Your task to perform on an android device: change the clock display to show seconds Image 0: 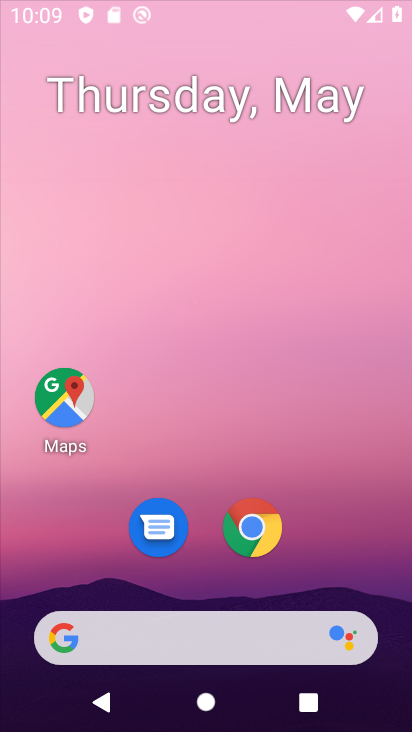
Step 0: drag from (294, 571) to (309, 30)
Your task to perform on an android device: change the clock display to show seconds Image 1: 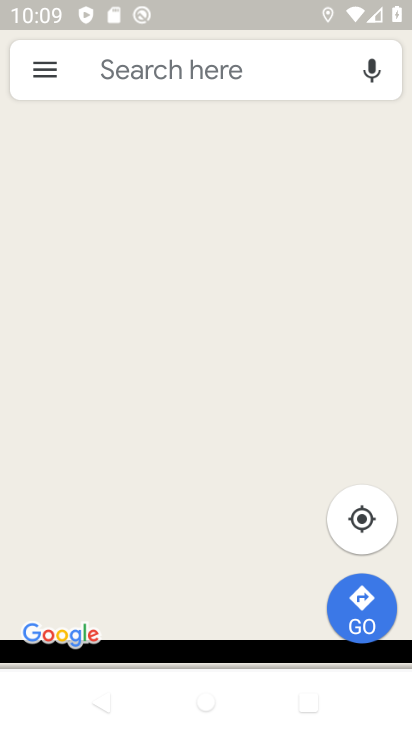
Step 1: press home button
Your task to perform on an android device: change the clock display to show seconds Image 2: 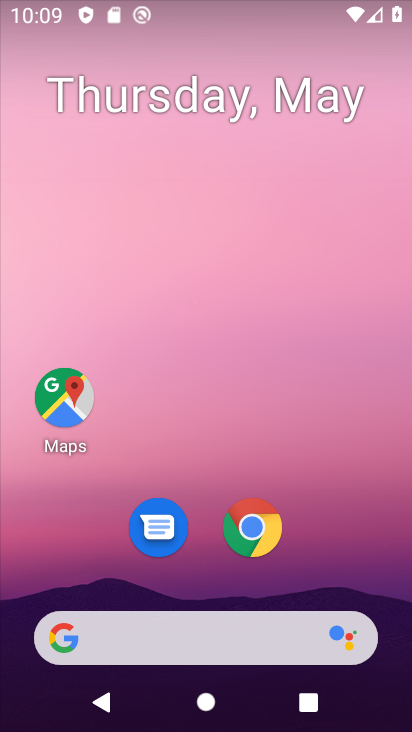
Step 2: drag from (270, 588) to (274, 148)
Your task to perform on an android device: change the clock display to show seconds Image 3: 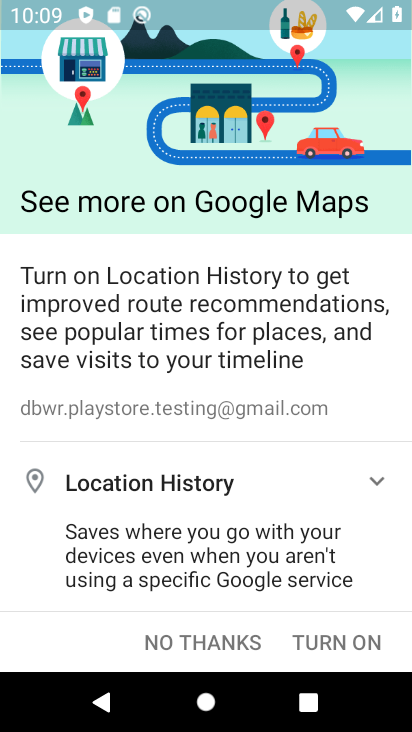
Step 3: press home button
Your task to perform on an android device: change the clock display to show seconds Image 4: 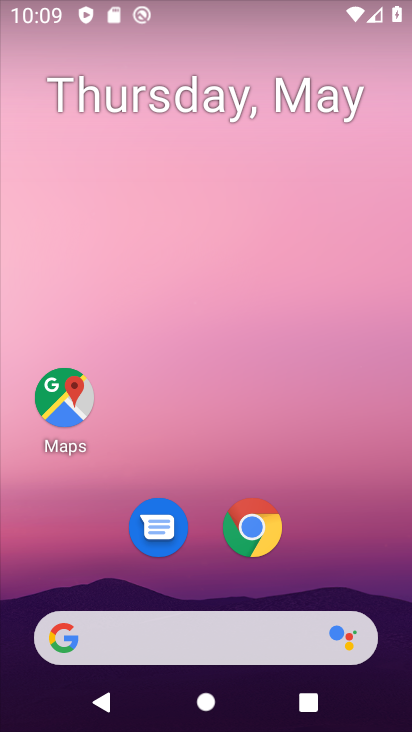
Step 4: drag from (295, 317) to (295, 195)
Your task to perform on an android device: change the clock display to show seconds Image 5: 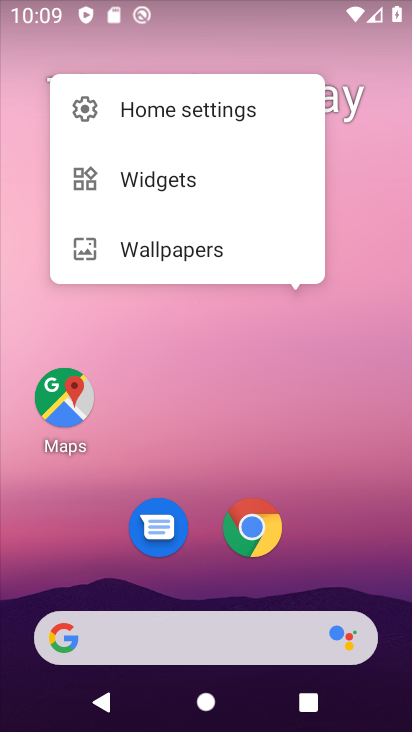
Step 5: drag from (282, 477) to (301, 122)
Your task to perform on an android device: change the clock display to show seconds Image 6: 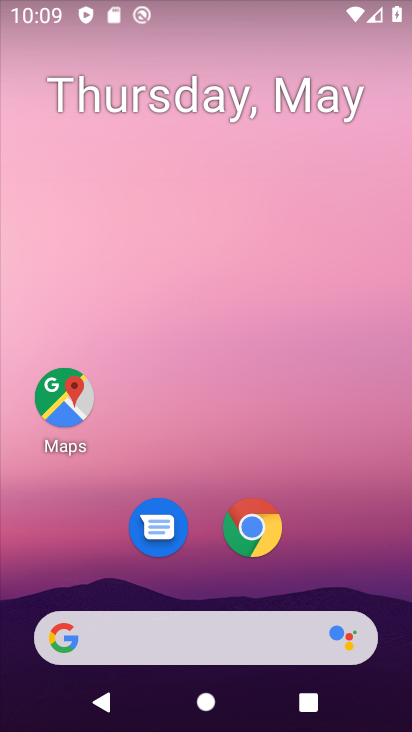
Step 6: drag from (289, 568) to (304, 106)
Your task to perform on an android device: change the clock display to show seconds Image 7: 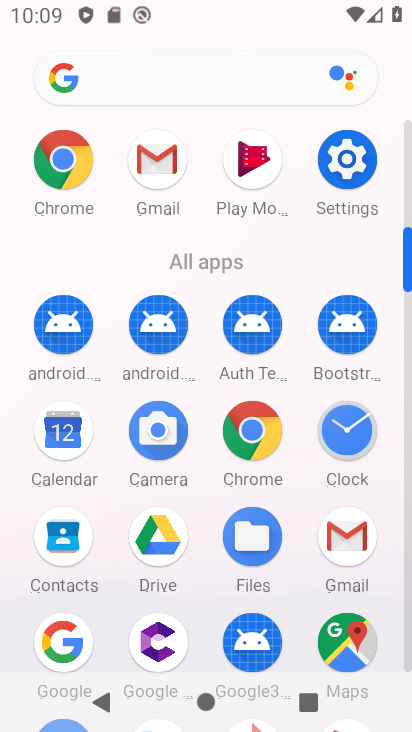
Step 7: click (351, 440)
Your task to perform on an android device: change the clock display to show seconds Image 8: 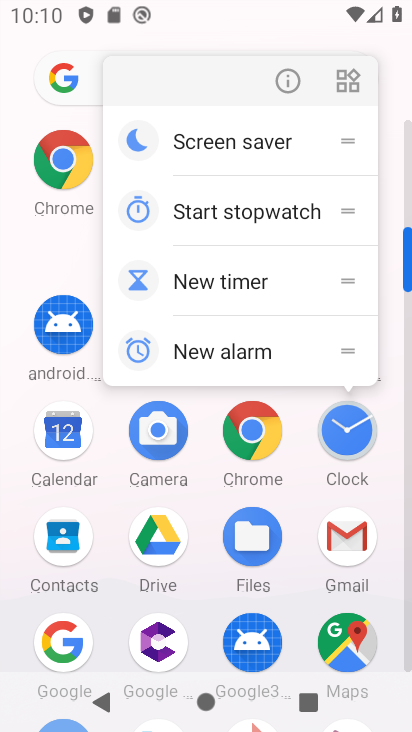
Step 8: click (349, 450)
Your task to perform on an android device: change the clock display to show seconds Image 9: 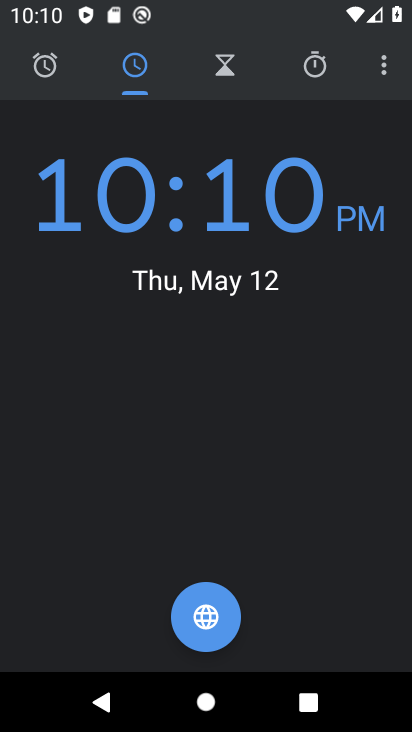
Step 9: click (381, 67)
Your task to perform on an android device: change the clock display to show seconds Image 10: 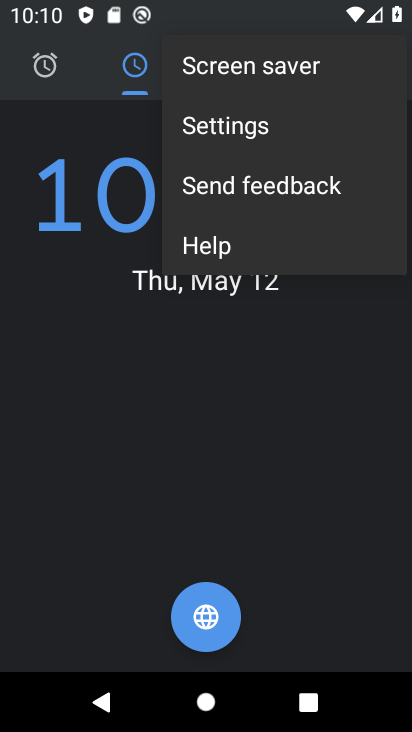
Step 10: click (260, 144)
Your task to perform on an android device: change the clock display to show seconds Image 11: 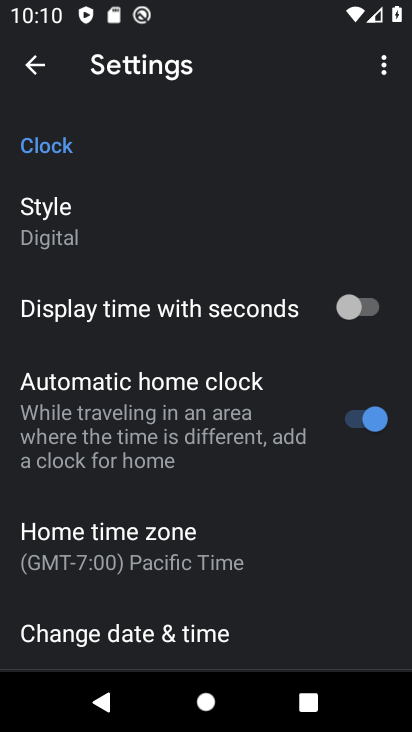
Step 11: click (369, 314)
Your task to perform on an android device: change the clock display to show seconds Image 12: 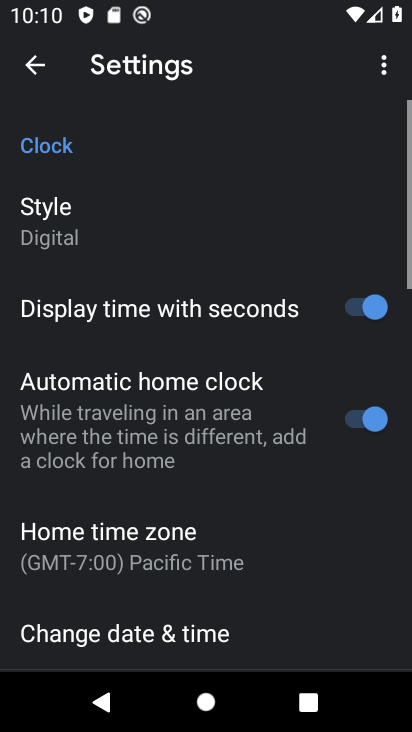
Step 12: task complete